Your task to perform on an android device: Open accessibility settings Image 0: 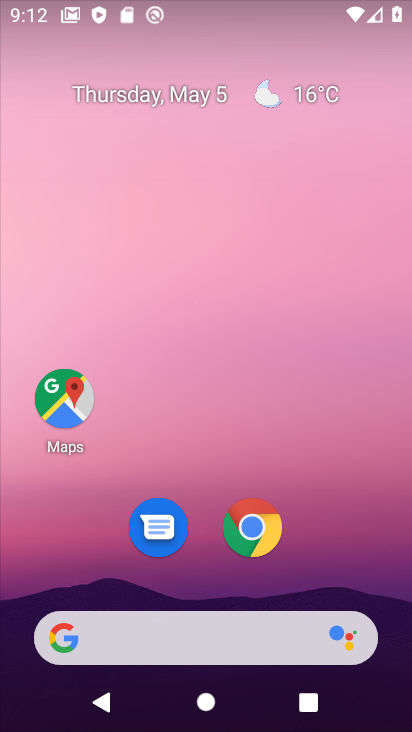
Step 0: press home button
Your task to perform on an android device: Open accessibility settings Image 1: 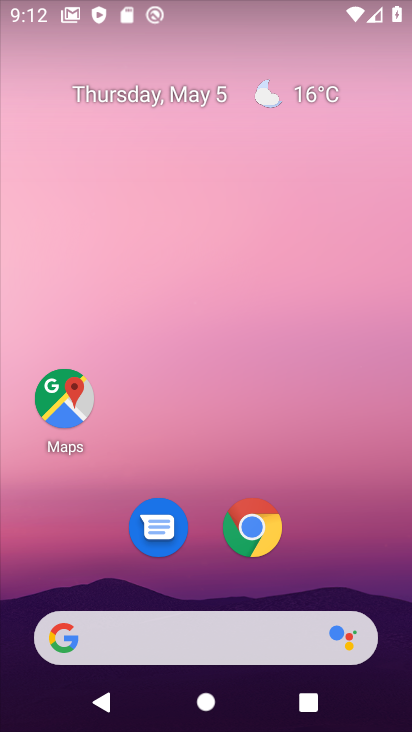
Step 1: drag from (204, 591) to (226, 37)
Your task to perform on an android device: Open accessibility settings Image 2: 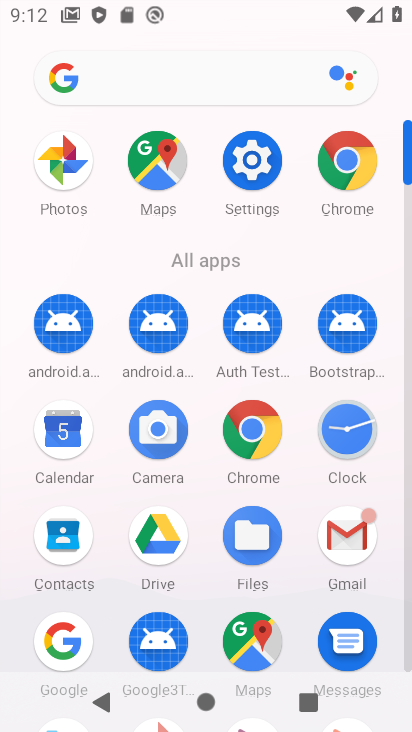
Step 2: click (247, 157)
Your task to perform on an android device: Open accessibility settings Image 3: 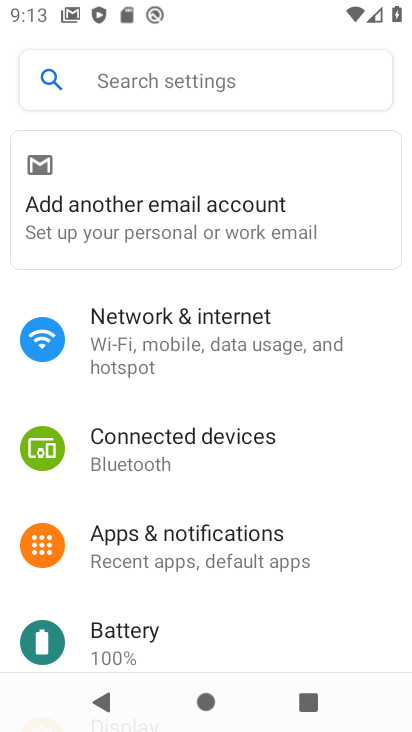
Step 3: drag from (209, 614) to (223, 129)
Your task to perform on an android device: Open accessibility settings Image 4: 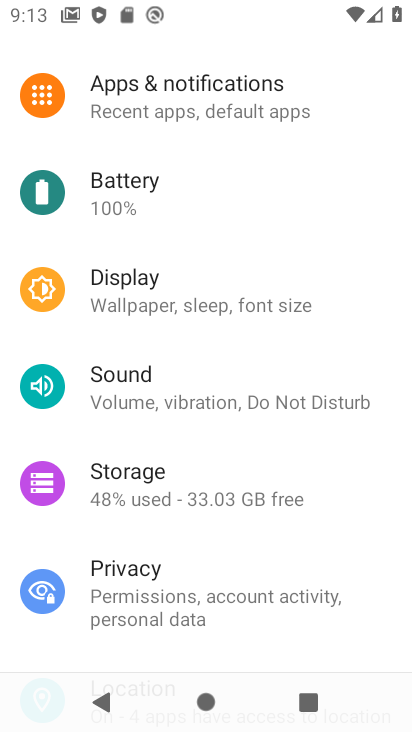
Step 4: drag from (185, 634) to (183, 78)
Your task to perform on an android device: Open accessibility settings Image 5: 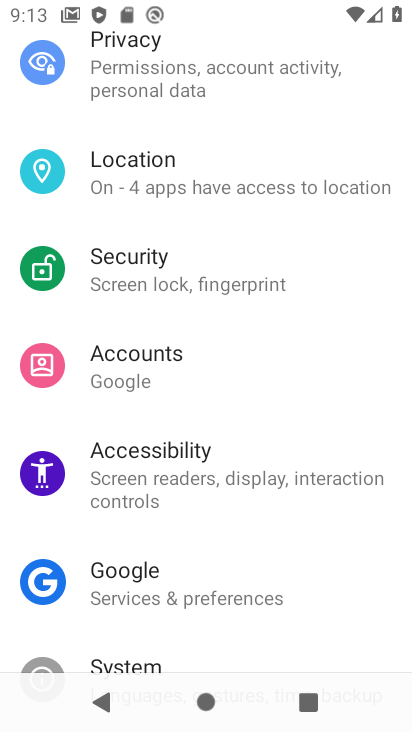
Step 5: click (218, 449)
Your task to perform on an android device: Open accessibility settings Image 6: 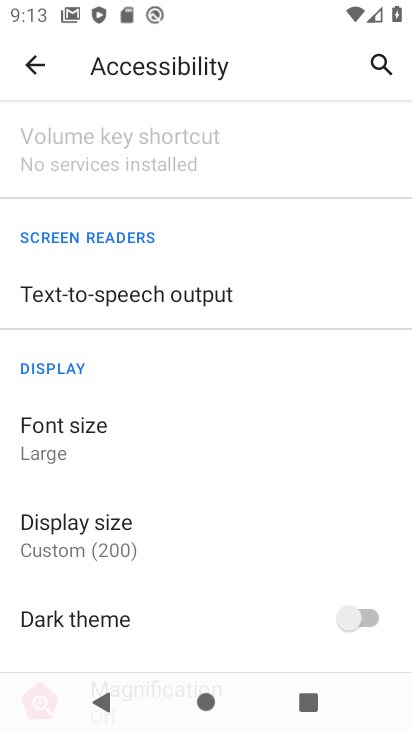
Step 6: task complete